Your task to perform on an android device: find which apps use the phone's location Image 0: 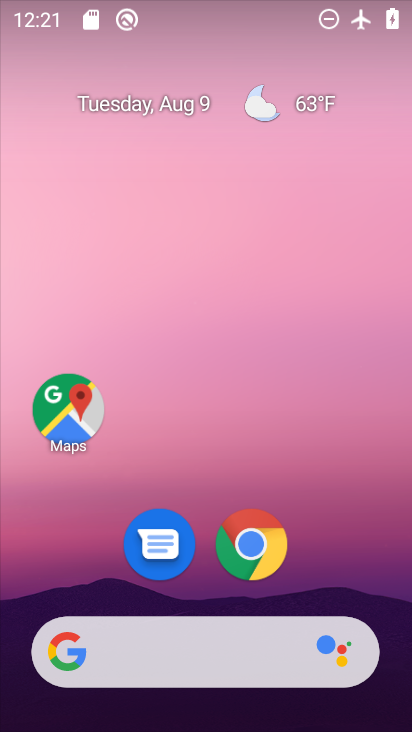
Step 0: drag from (171, 651) to (250, 89)
Your task to perform on an android device: find which apps use the phone's location Image 1: 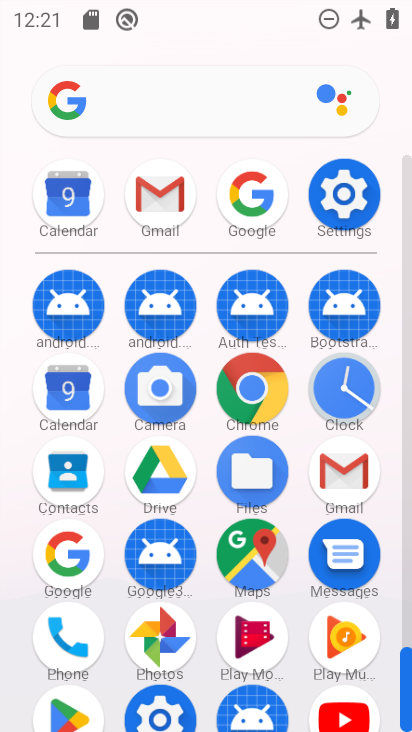
Step 1: click (343, 194)
Your task to perform on an android device: find which apps use the phone's location Image 2: 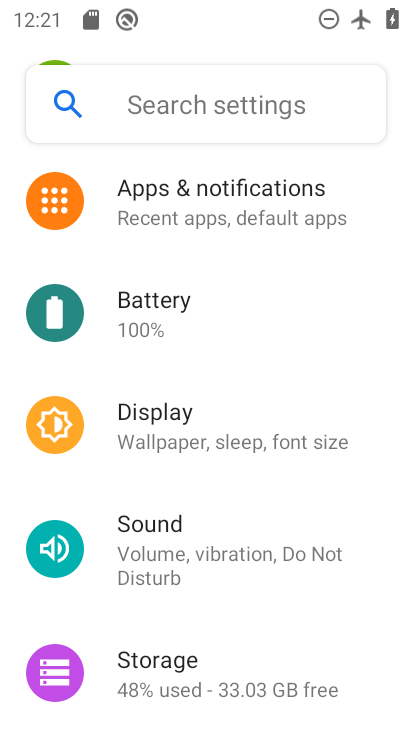
Step 2: drag from (214, 609) to (297, 470)
Your task to perform on an android device: find which apps use the phone's location Image 3: 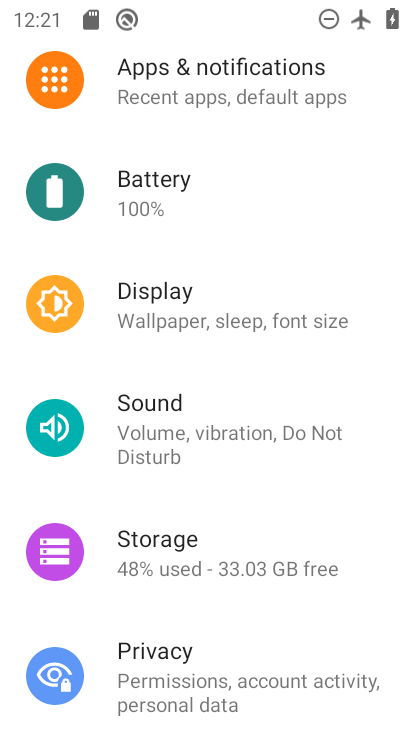
Step 3: drag from (211, 636) to (310, 426)
Your task to perform on an android device: find which apps use the phone's location Image 4: 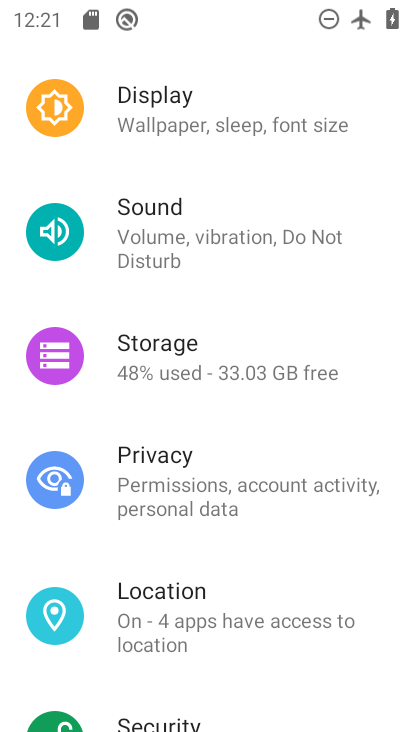
Step 4: click (168, 598)
Your task to perform on an android device: find which apps use the phone's location Image 5: 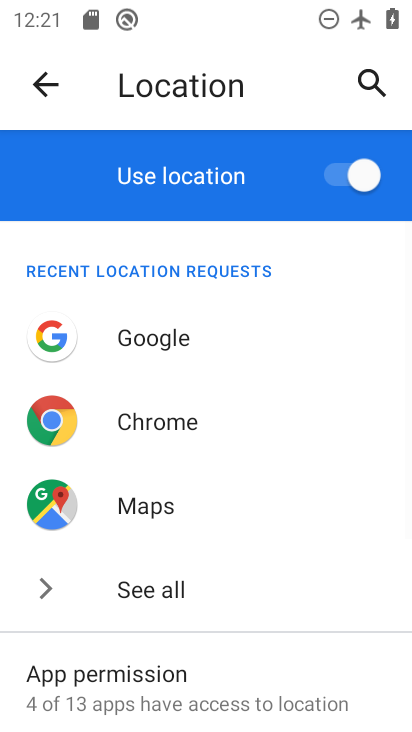
Step 5: click (168, 679)
Your task to perform on an android device: find which apps use the phone's location Image 6: 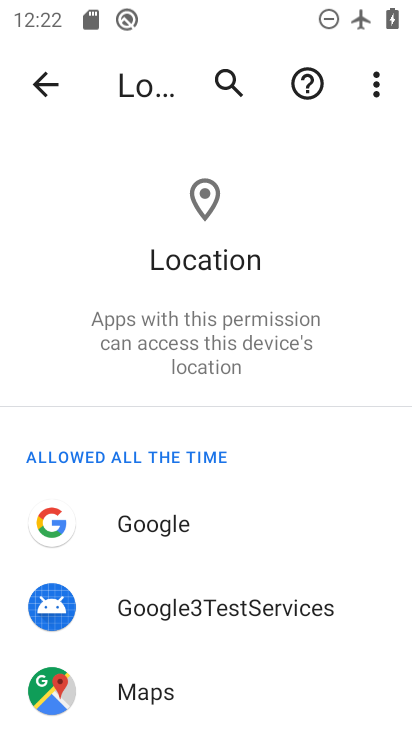
Step 6: click (147, 677)
Your task to perform on an android device: find which apps use the phone's location Image 7: 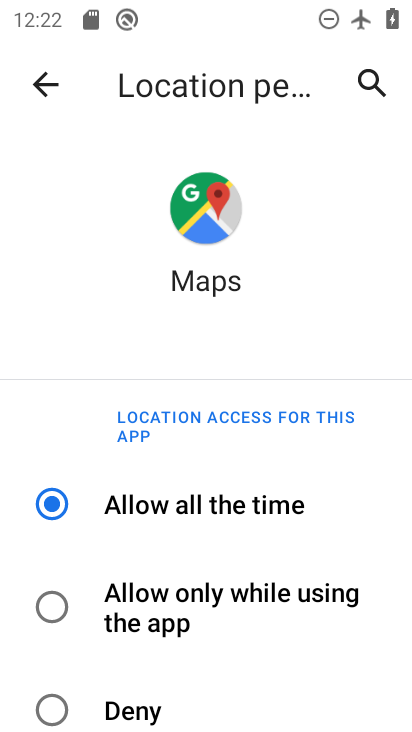
Step 7: task complete